Your task to perform on an android device: toggle translation in the chrome app Image 0: 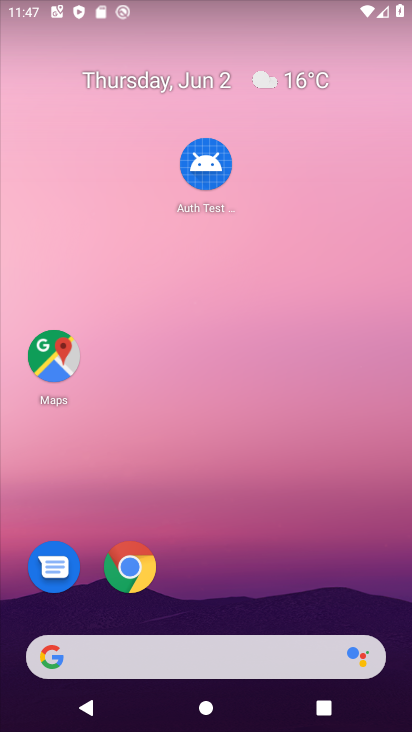
Step 0: click (129, 566)
Your task to perform on an android device: toggle translation in the chrome app Image 1: 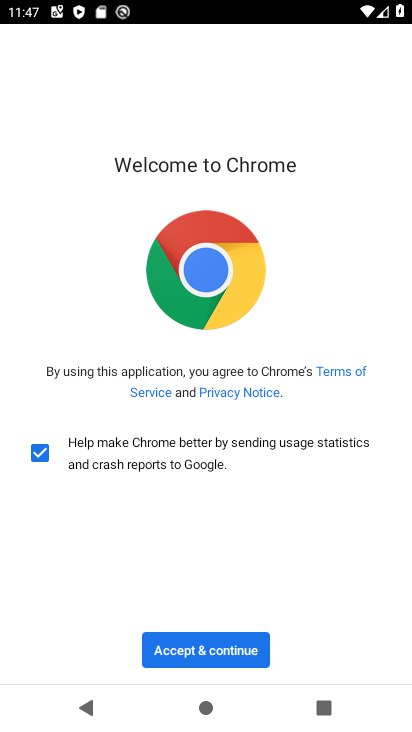
Step 1: click (197, 637)
Your task to perform on an android device: toggle translation in the chrome app Image 2: 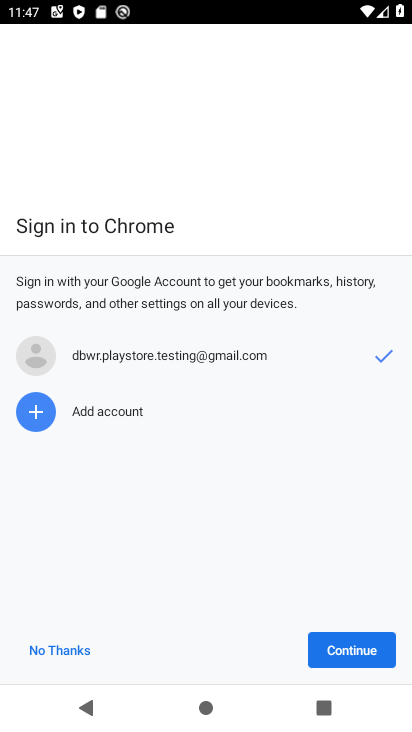
Step 2: click (376, 634)
Your task to perform on an android device: toggle translation in the chrome app Image 3: 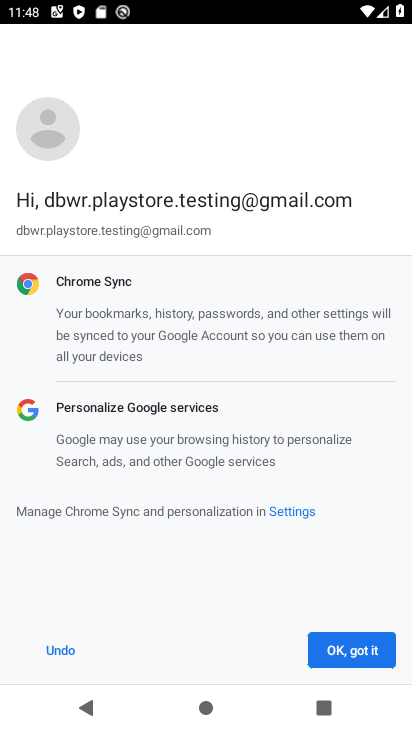
Step 3: click (357, 647)
Your task to perform on an android device: toggle translation in the chrome app Image 4: 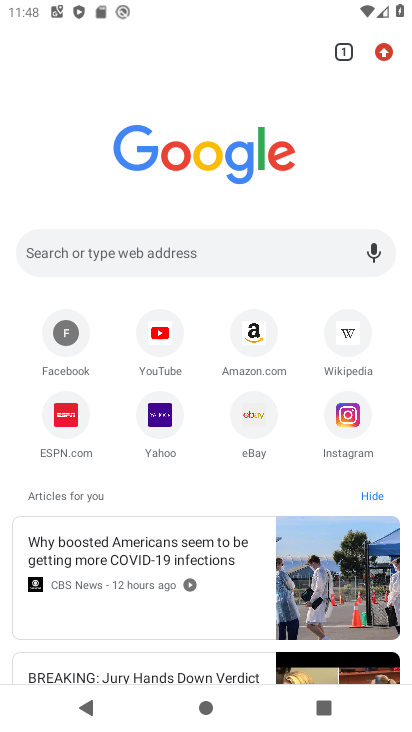
Step 4: click (393, 53)
Your task to perform on an android device: toggle translation in the chrome app Image 5: 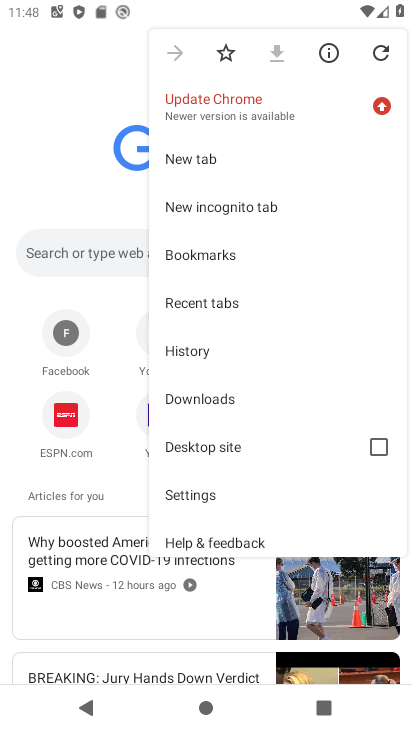
Step 5: click (182, 487)
Your task to perform on an android device: toggle translation in the chrome app Image 6: 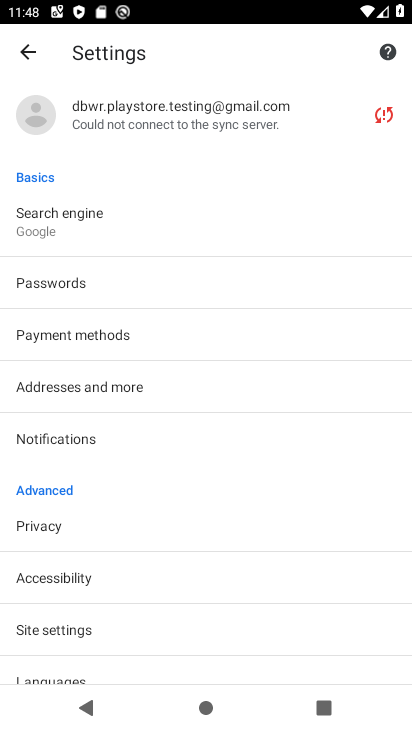
Step 6: click (80, 675)
Your task to perform on an android device: toggle translation in the chrome app Image 7: 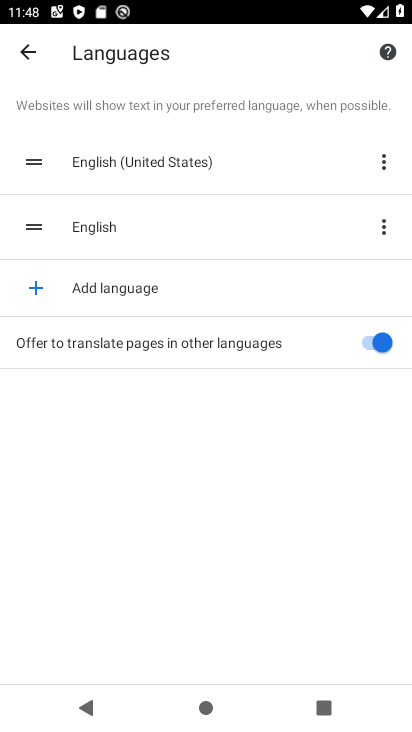
Step 7: click (383, 344)
Your task to perform on an android device: toggle translation in the chrome app Image 8: 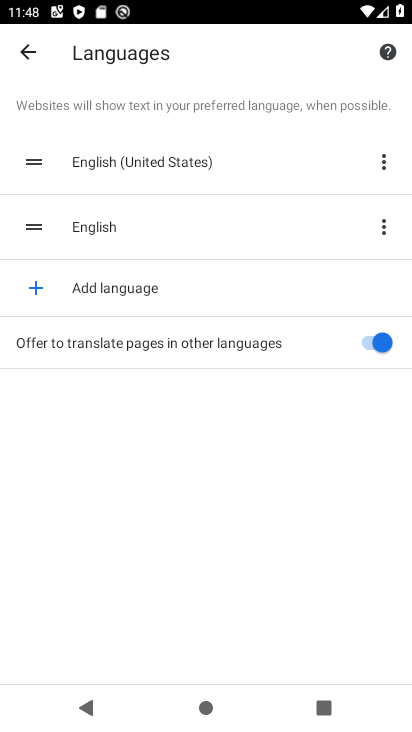
Step 8: click (383, 344)
Your task to perform on an android device: toggle translation in the chrome app Image 9: 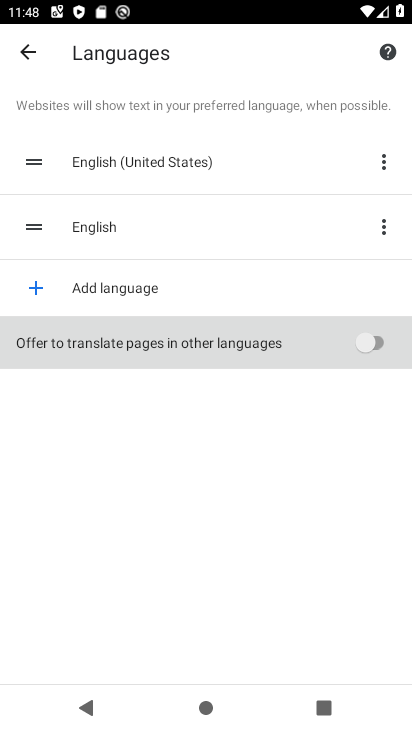
Step 9: click (383, 344)
Your task to perform on an android device: toggle translation in the chrome app Image 10: 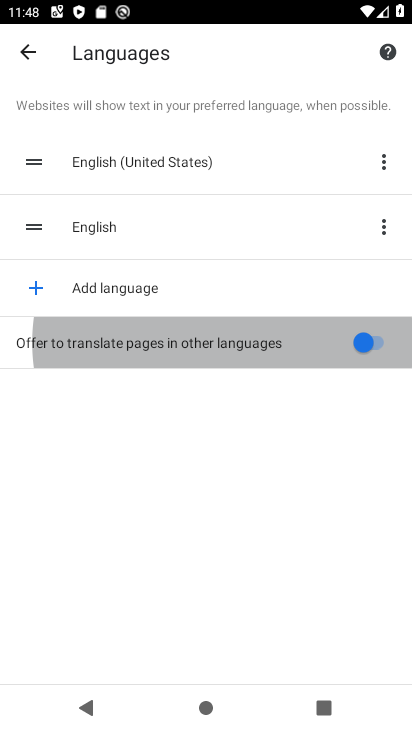
Step 10: click (383, 344)
Your task to perform on an android device: toggle translation in the chrome app Image 11: 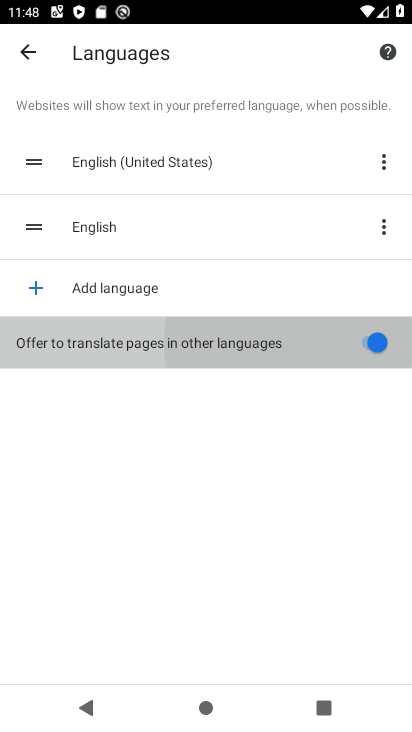
Step 11: click (383, 344)
Your task to perform on an android device: toggle translation in the chrome app Image 12: 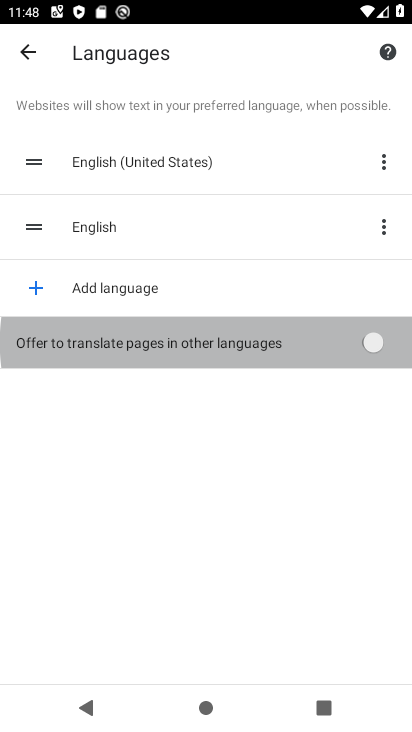
Step 12: click (383, 344)
Your task to perform on an android device: toggle translation in the chrome app Image 13: 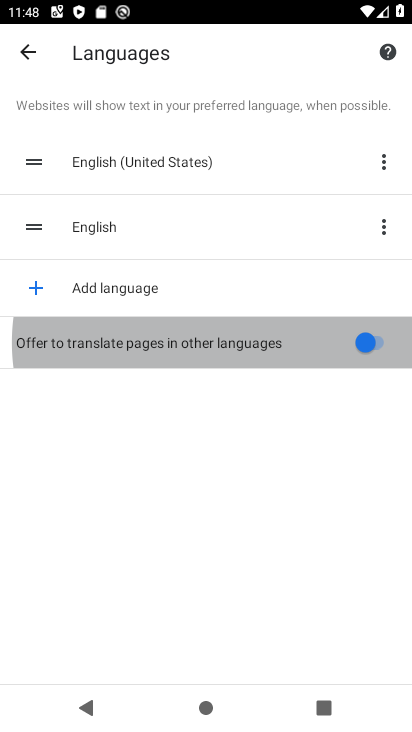
Step 13: click (383, 344)
Your task to perform on an android device: toggle translation in the chrome app Image 14: 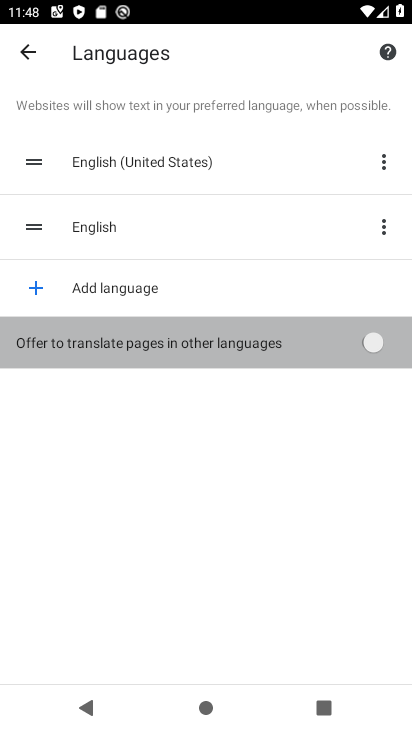
Step 14: click (383, 344)
Your task to perform on an android device: toggle translation in the chrome app Image 15: 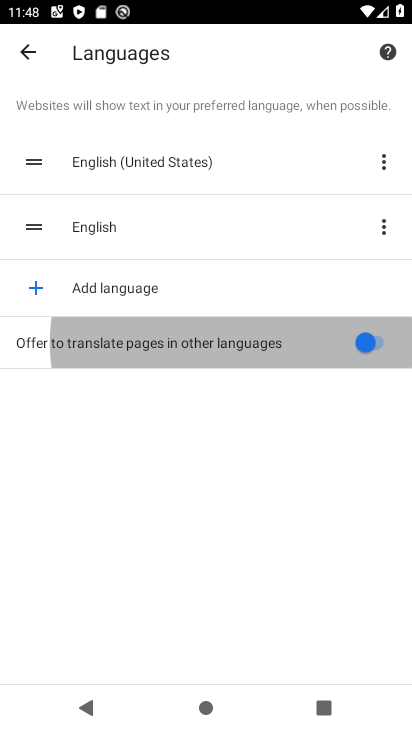
Step 15: click (383, 344)
Your task to perform on an android device: toggle translation in the chrome app Image 16: 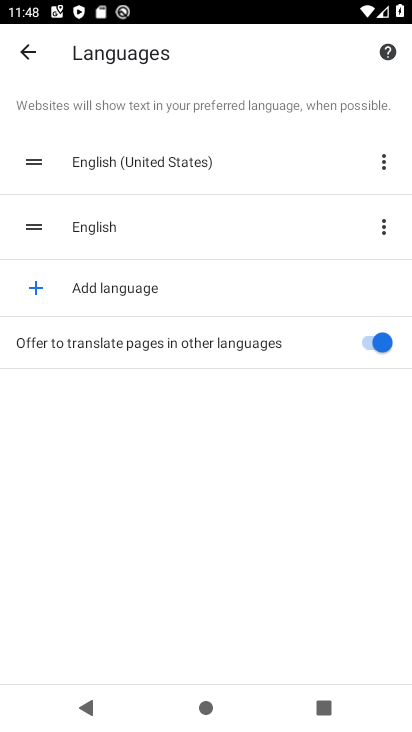
Step 16: task complete